Your task to perform on an android device: turn on airplane mode Image 0: 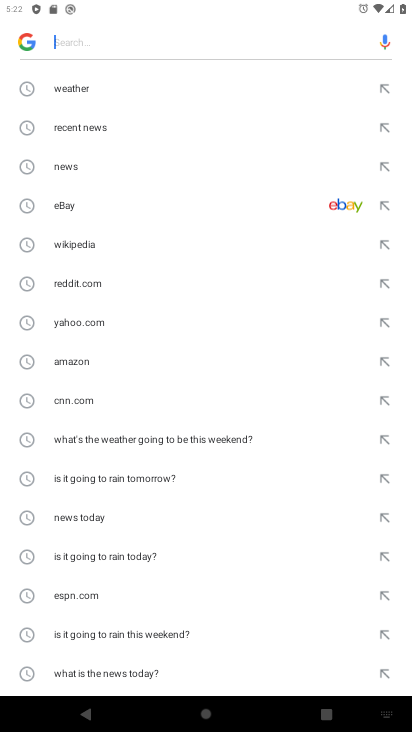
Step 0: press home button
Your task to perform on an android device: turn on airplane mode Image 1: 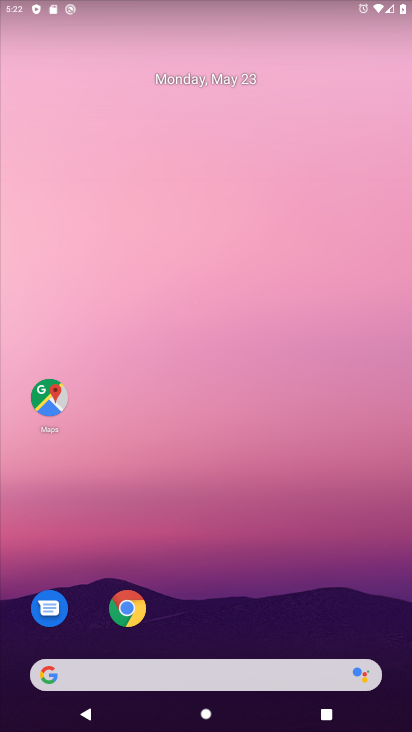
Step 1: drag from (232, 632) to (186, 12)
Your task to perform on an android device: turn on airplane mode Image 2: 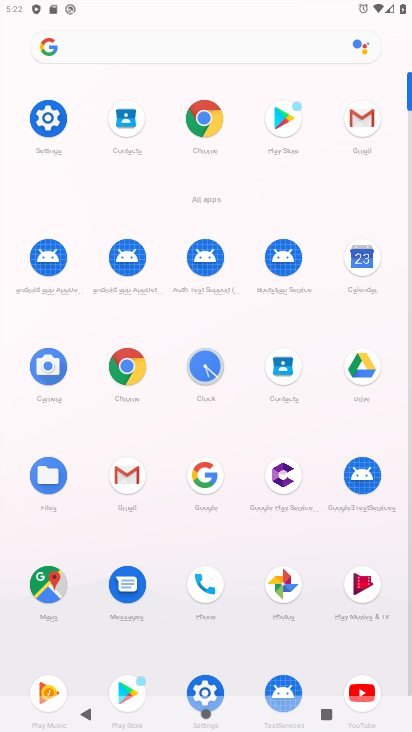
Step 2: click (205, 683)
Your task to perform on an android device: turn on airplane mode Image 3: 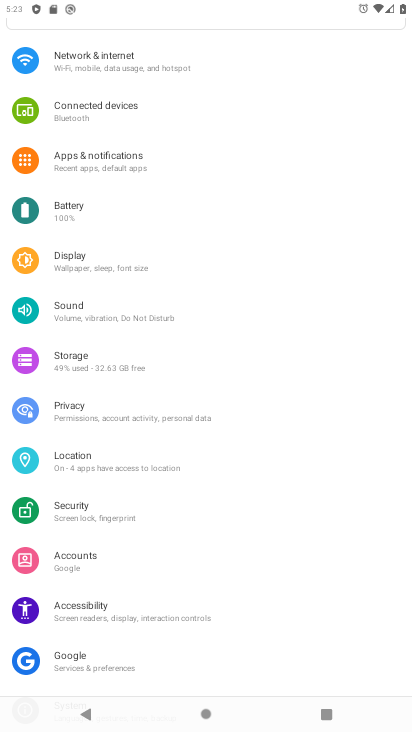
Step 3: click (58, 72)
Your task to perform on an android device: turn on airplane mode Image 4: 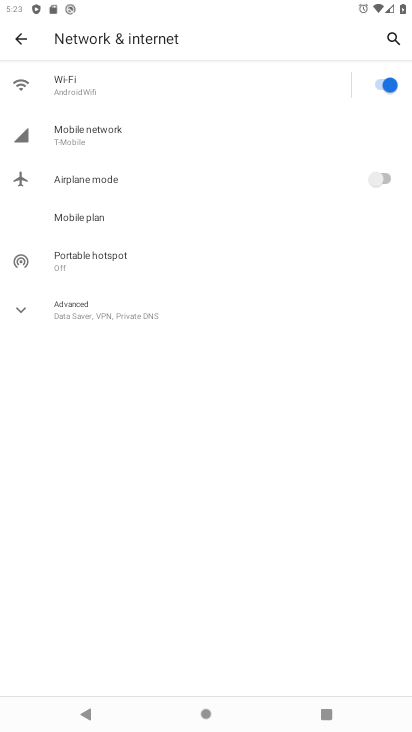
Step 4: click (390, 183)
Your task to perform on an android device: turn on airplane mode Image 5: 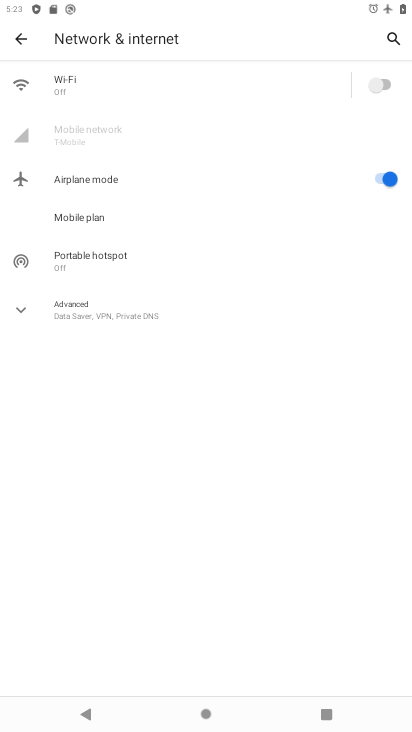
Step 5: task complete